Your task to perform on an android device: see sites visited before in the chrome app Image 0: 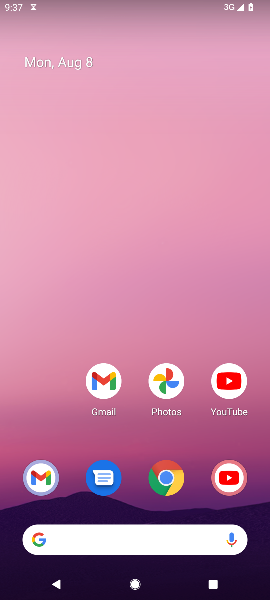
Step 0: click (166, 477)
Your task to perform on an android device: see sites visited before in the chrome app Image 1: 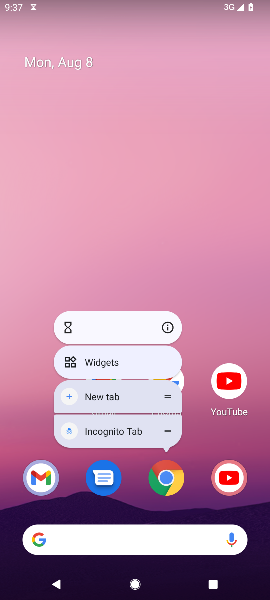
Step 1: click (167, 483)
Your task to perform on an android device: see sites visited before in the chrome app Image 2: 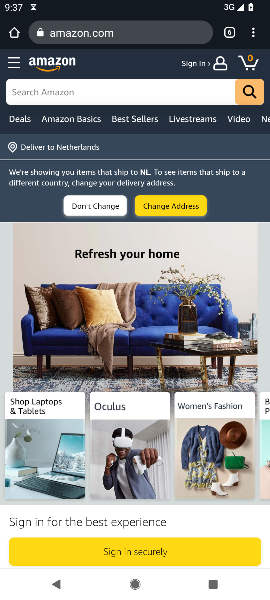
Step 2: task complete